Your task to perform on an android device: toggle translation in the chrome app Image 0: 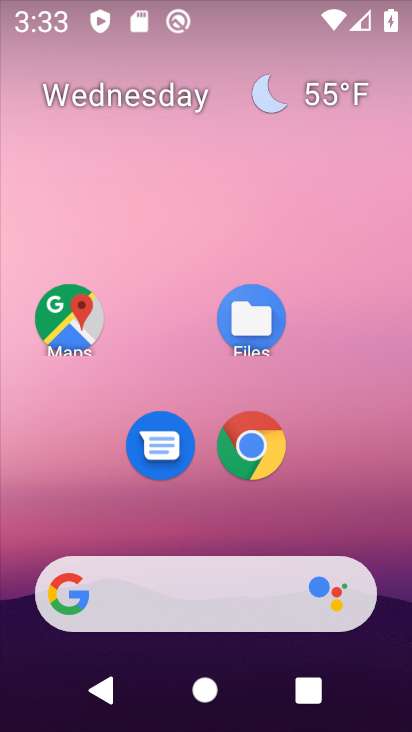
Step 0: click (264, 453)
Your task to perform on an android device: toggle translation in the chrome app Image 1: 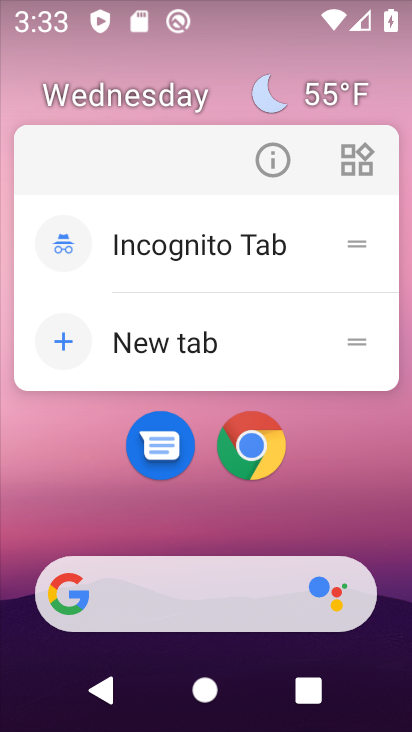
Step 1: click (264, 453)
Your task to perform on an android device: toggle translation in the chrome app Image 2: 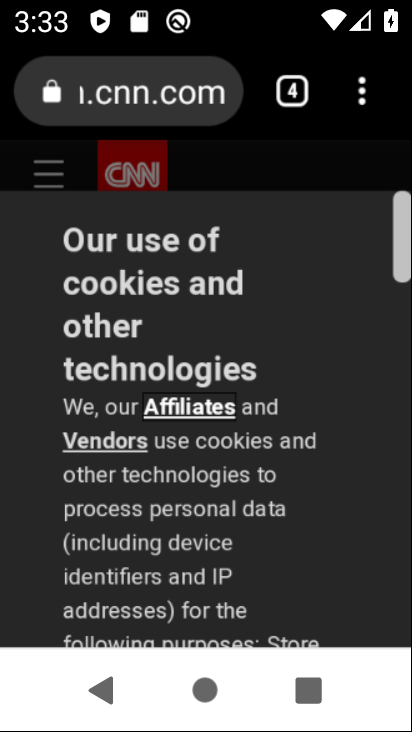
Step 2: click (258, 450)
Your task to perform on an android device: toggle translation in the chrome app Image 3: 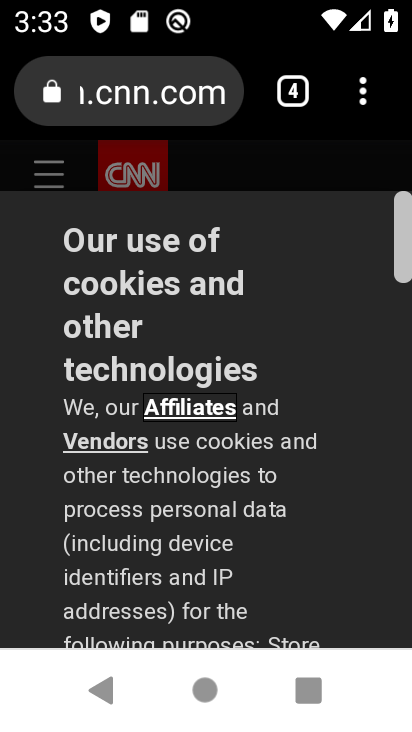
Step 3: click (362, 89)
Your task to perform on an android device: toggle translation in the chrome app Image 4: 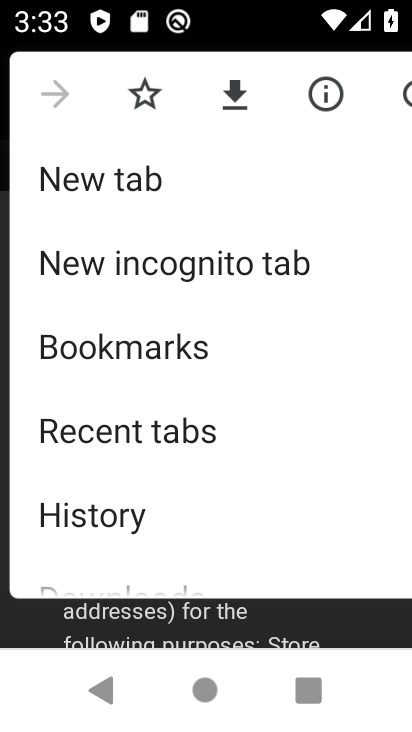
Step 4: drag from (220, 508) to (203, 21)
Your task to perform on an android device: toggle translation in the chrome app Image 5: 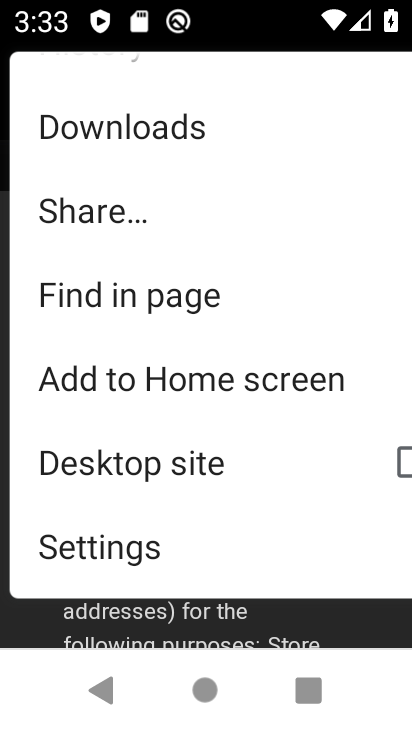
Step 5: click (128, 566)
Your task to perform on an android device: toggle translation in the chrome app Image 6: 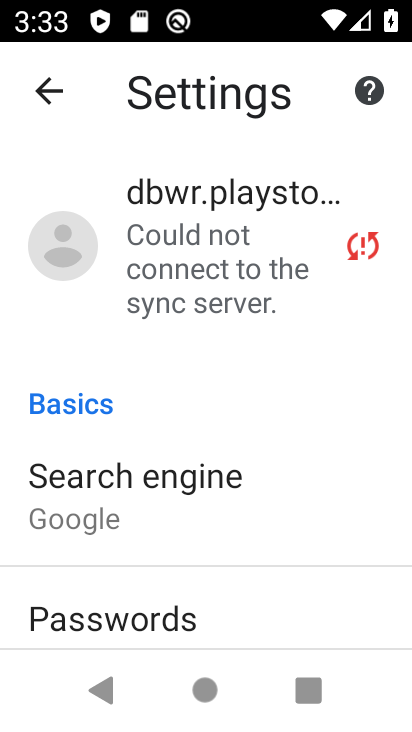
Step 6: drag from (171, 600) to (137, 13)
Your task to perform on an android device: toggle translation in the chrome app Image 7: 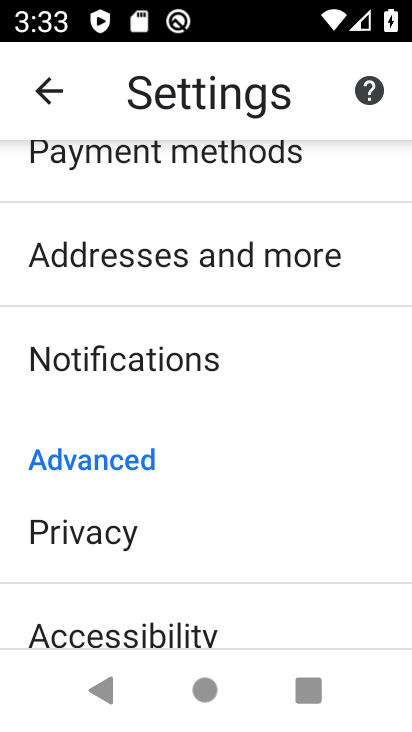
Step 7: drag from (174, 561) to (221, 32)
Your task to perform on an android device: toggle translation in the chrome app Image 8: 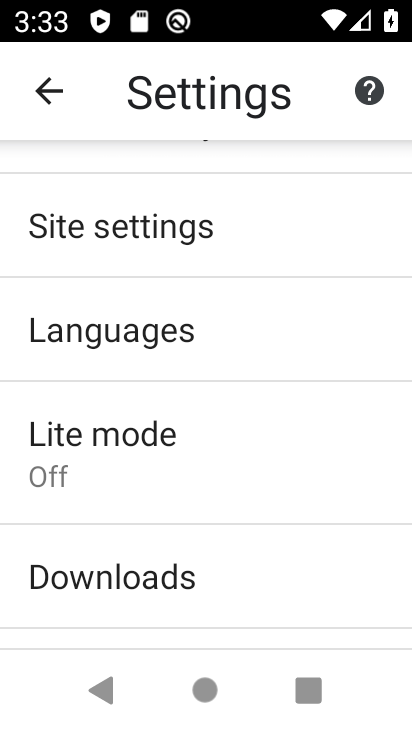
Step 8: click (147, 294)
Your task to perform on an android device: toggle translation in the chrome app Image 9: 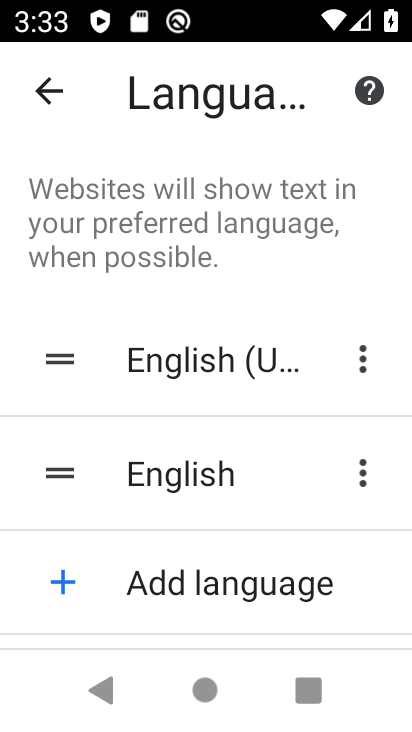
Step 9: drag from (276, 607) to (255, 543)
Your task to perform on an android device: toggle translation in the chrome app Image 10: 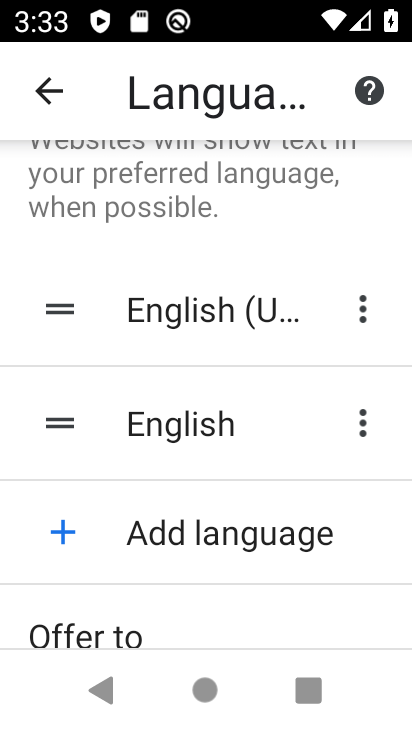
Step 10: click (260, 504)
Your task to perform on an android device: toggle translation in the chrome app Image 11: 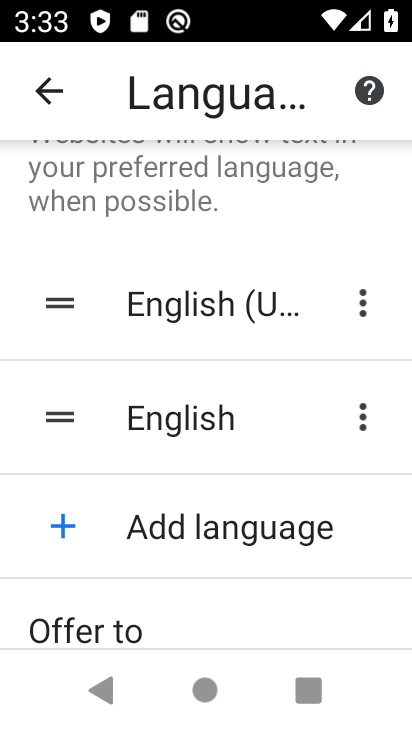
Step 11: drag from (142, 616) to (230, 162)
Your task to perform on an android device: toggle translation in the chrome app Image 12: 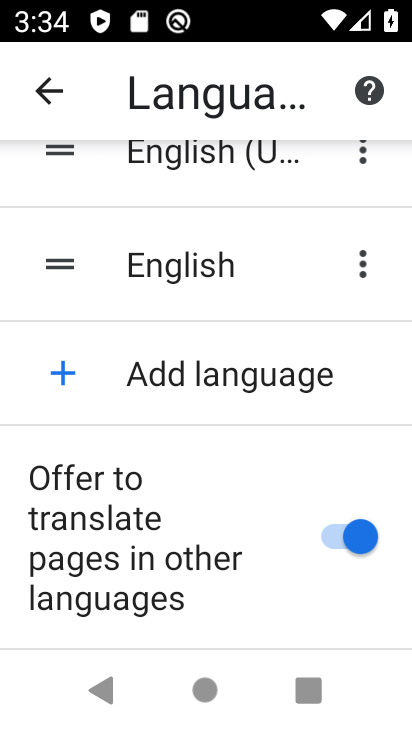
Step 12: click (349, 532)
Your task to perform on an android device: toggle translation in the chrome app Image 13: 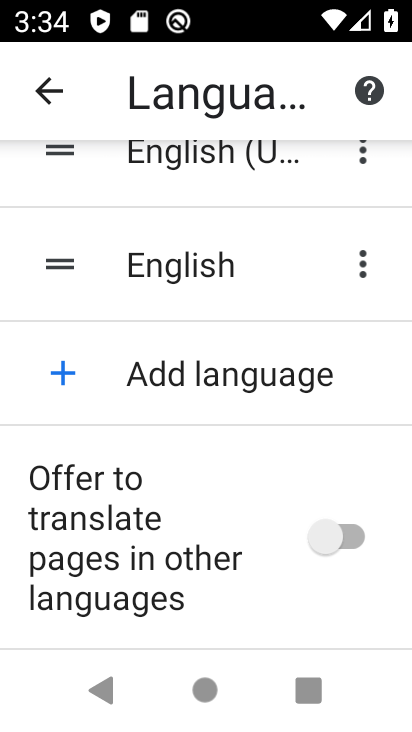
Step 13: task complete